Your task to perform on an android device: Go to display settings Image 0: 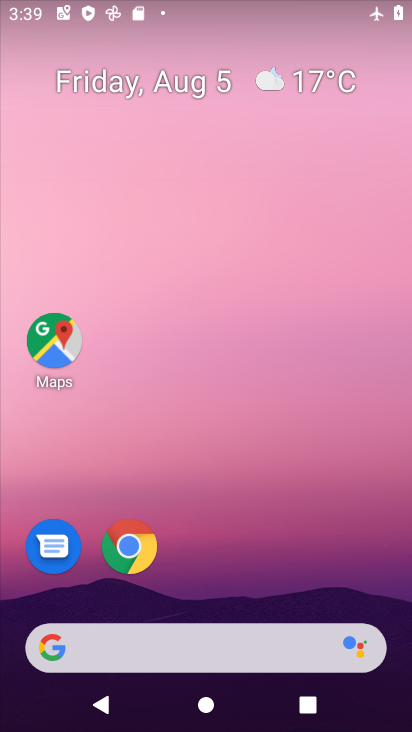
Step 0: press home button
Your task to perform on an android device: Go to display settings Image 1: 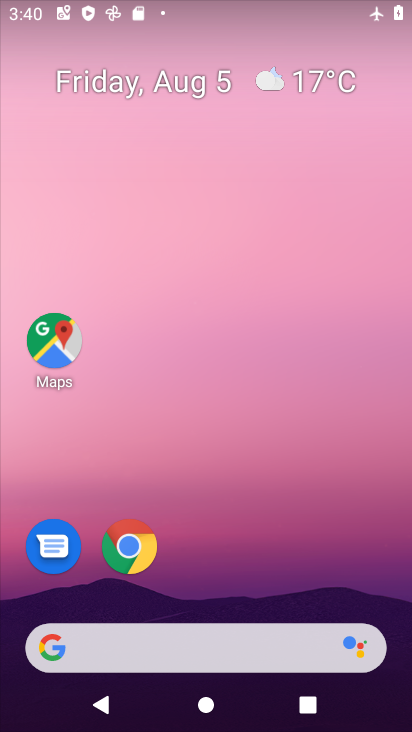
Step 1: drag from (303, 567) to (353, 121)
Your task to perform on an android device: Go to display settings Image 2: 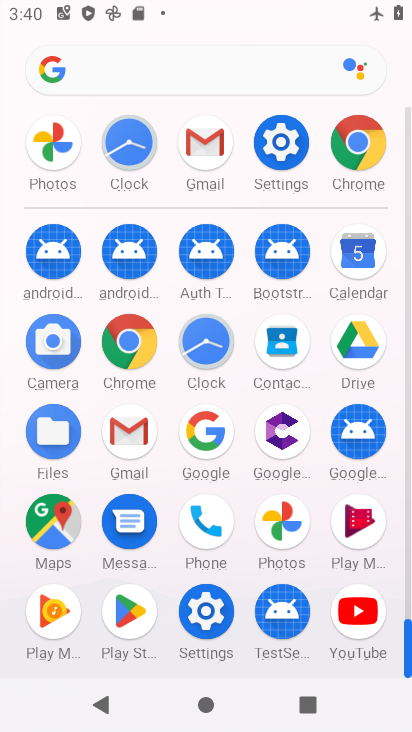
Step 2: click (213, 600)
Your task to perform on an android device: Go to display settings Image 3: 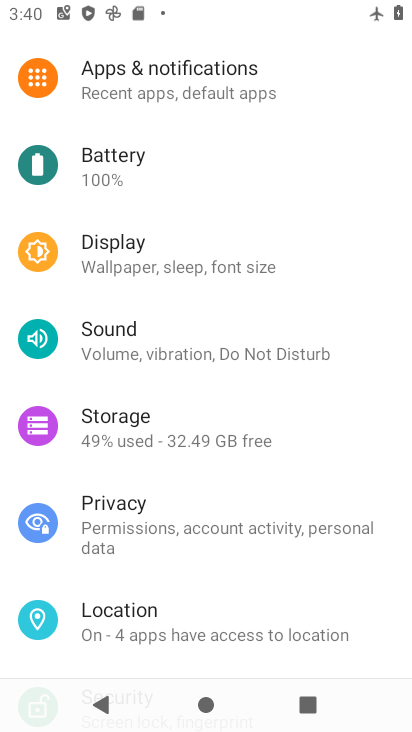
Step 3: drag from (290, 588) to (305, 461)
Your task to perform on an android device: Go to display settings Image 4: 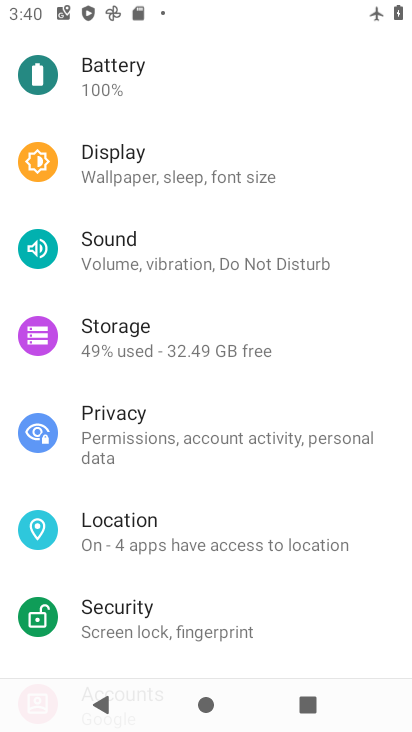
Step 4: drag from (333, 622) to (338, 424)
Your task to perform on an android device: Go to display settings Image 5: 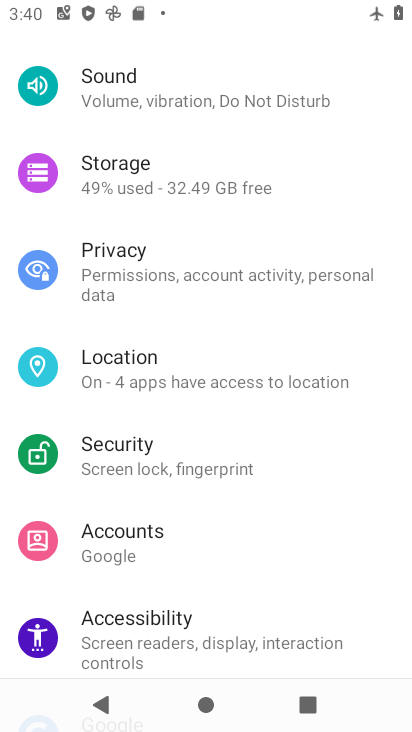
Step 5: drag from (360, 568) to (354, 397)
Your task to perform on an android device: Go to display settings Image 6: 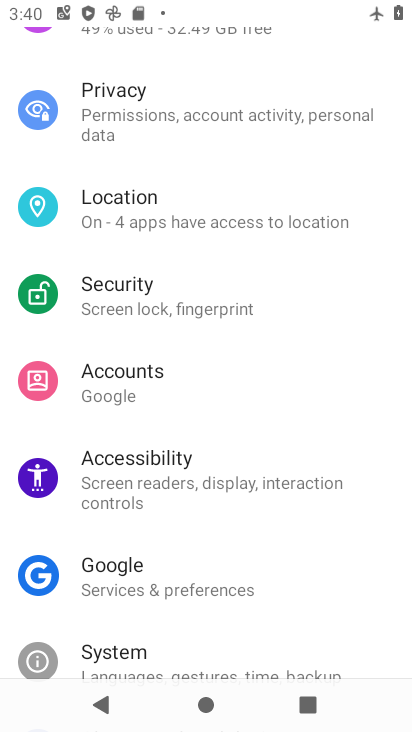
Step 6: drag from (344, 552) to (355, 378)
Your task to perform on an android device: Go to display settings Image 7: 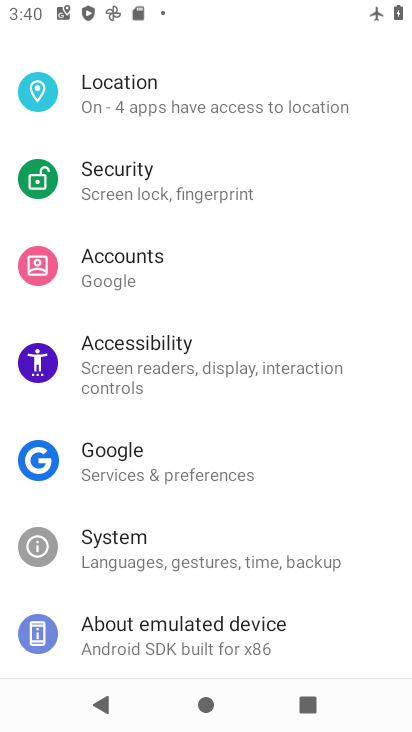
Step 7: drag from (355, 211) to (369, 439)
Your task to perform on an android device: Go to display settings Image 8: 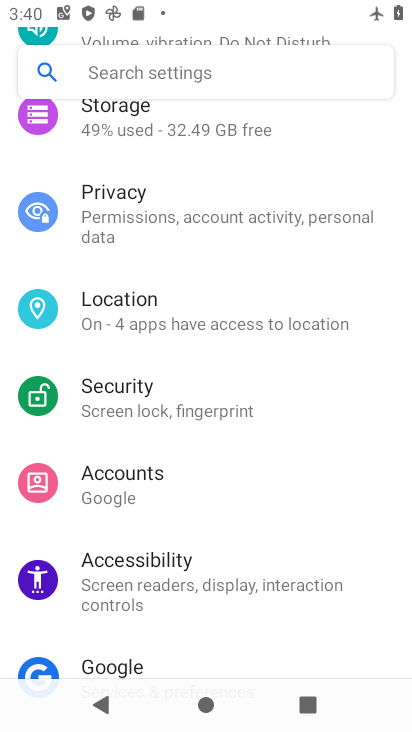
Step 8: drag from (385, 255) to (379, 404)
Your task to perform on an android device: Go to display settings Image 9: 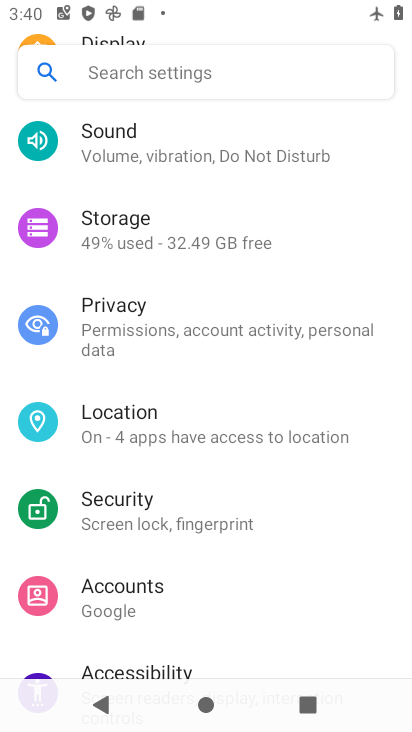
Step 9: drag from (374, 209) to (373, 397)
Your task to perform on an android device: Go to display settings Image 10: 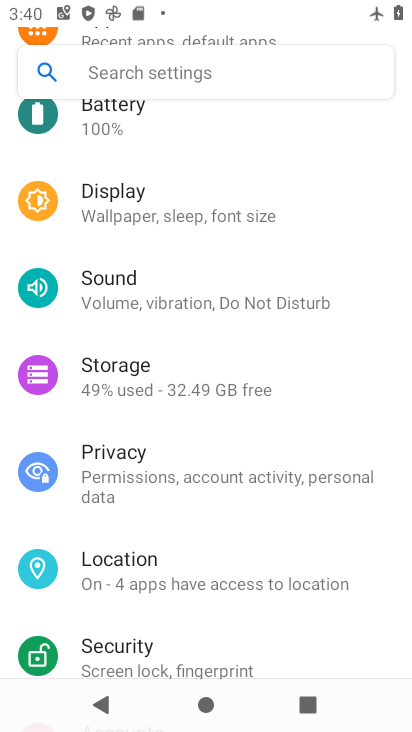
Step 10: drag from (354, 172) to (379, 361)
Your task to perform on an android device: Go to display settings Image 11: 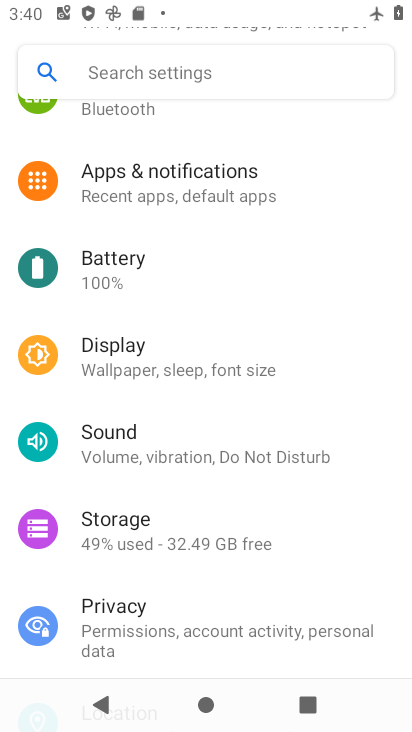
Step 11: drag from (326, 196) to (338, 392)
Your task to perform on an android device: Go to display settings Image 12: 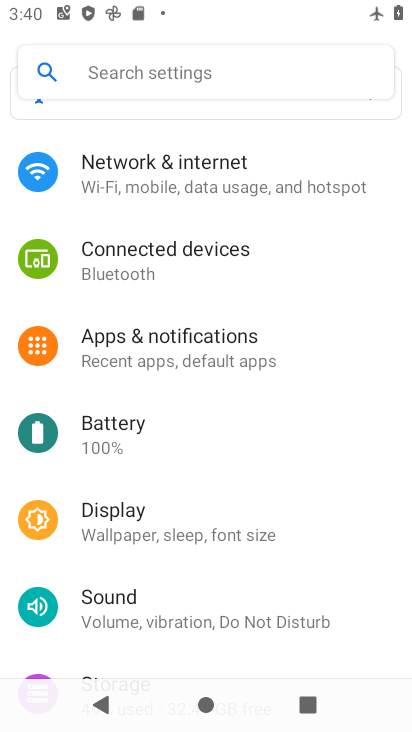
Step 12: click (298, 507)
Your task to perform on an android device: Go to display settings Image 13: 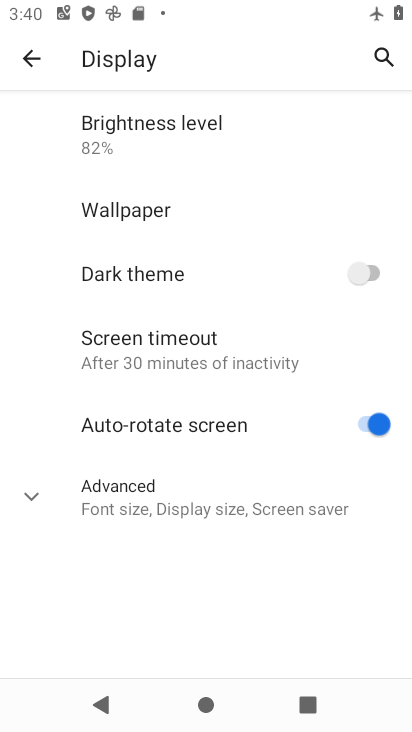
Step 13: task complete